Your task to perform on an android device: create a new album in the google photos Image 0: 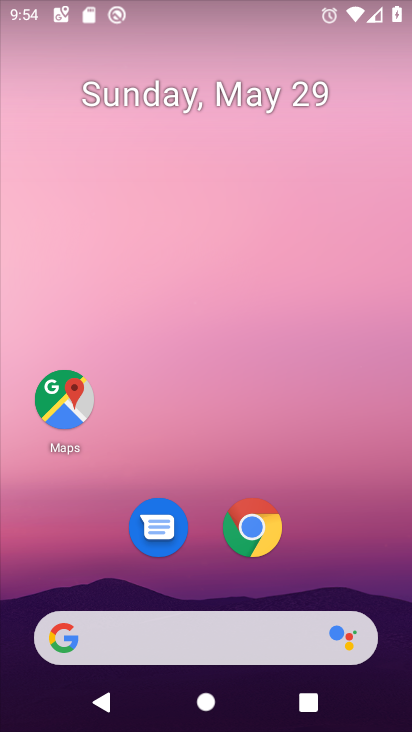
Step 0: press home button
Your task to perform on an android device: create a new album in the google photos Image 1: 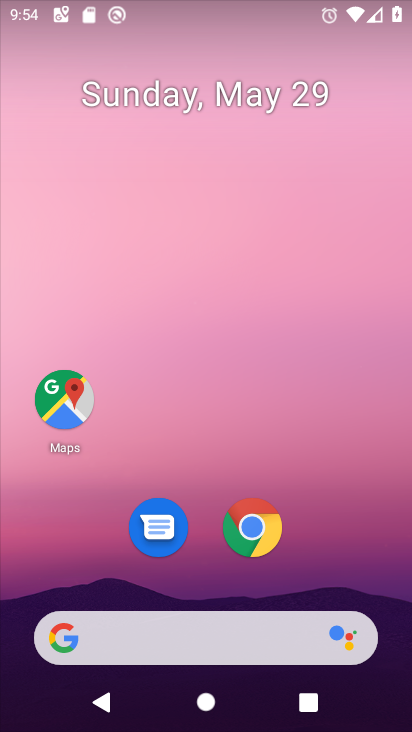
Step 1: drag from (208, 583) to (222, 58)
Your task to perform on an android device: create a new album in the google photos Image 2: 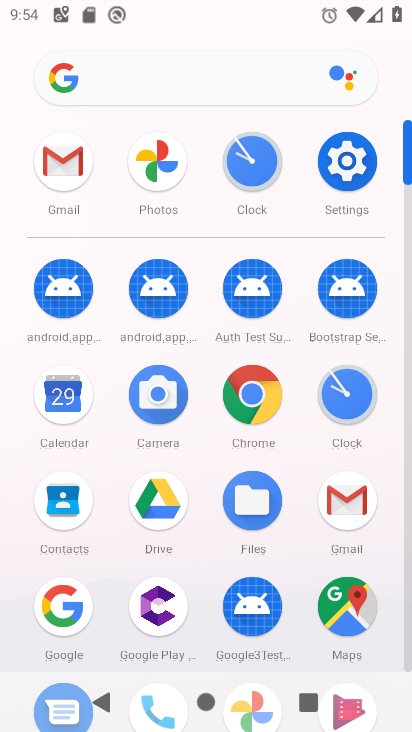
Step 2: drag from (202, 613) to (248, 199)
Your task to perform on an android device: create a new album in the google photos Image 3: 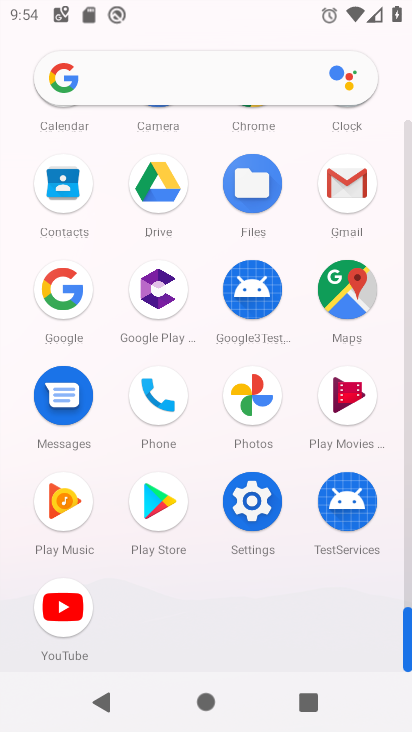
Step 3: click (249, 385)
Your task to perform on an android device: create a new album in the google photos Image 4: 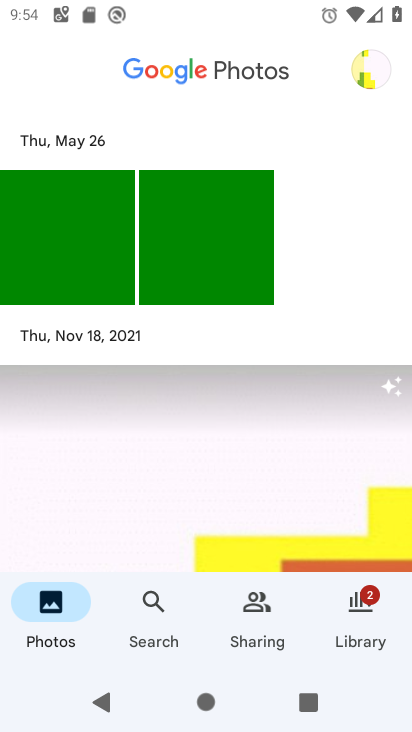
Step 4: click (361, 610)
Your task to perform on an android device: create a new album in the google photos Image 5: 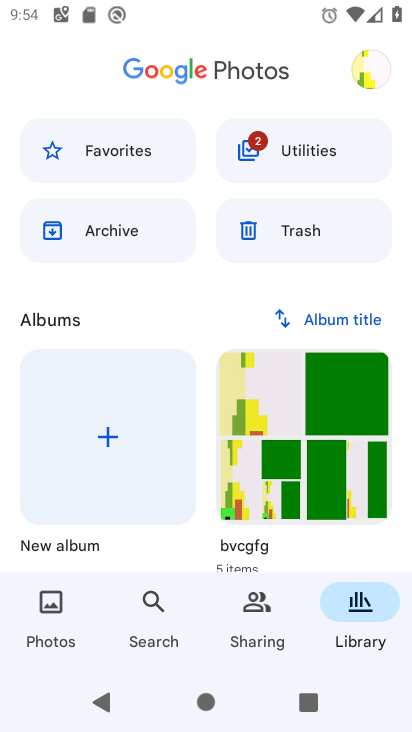
Step 5: click (258, 599)
Your task to perform on an android device: create a new album in the google photos Image 6: 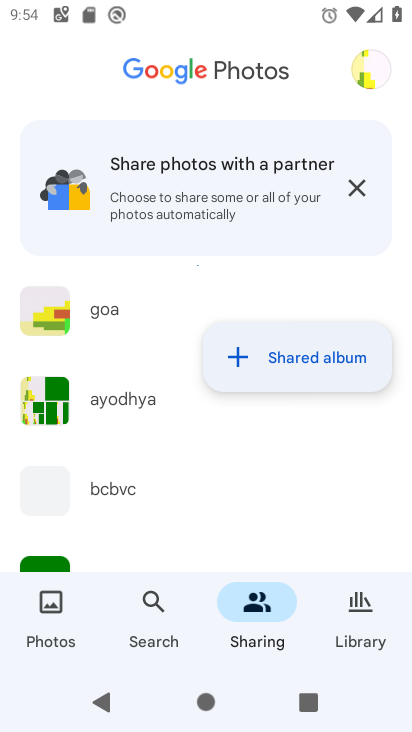
Step 6: click (250, 363)
Your task to perform on an android device: create a new album in the google photos Image 7: 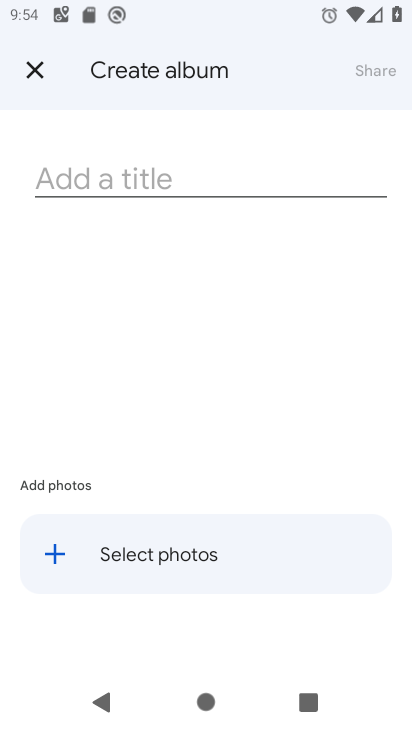
Step 7: click (70, 556)
Your task to perform on an android device: create a new album in the google photos Image 8: 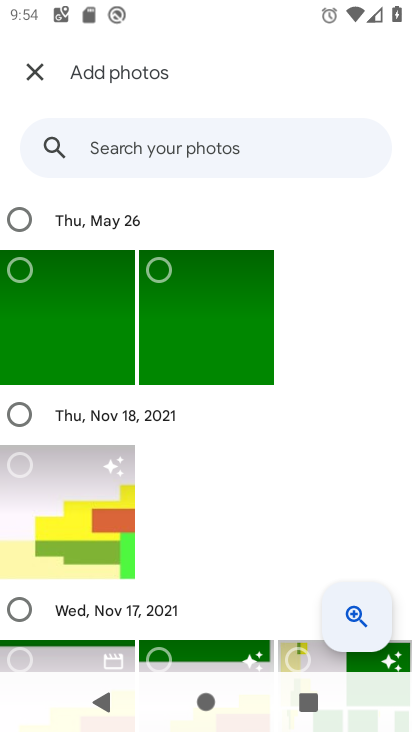
Step 8: click (20, 217)
Your task to perform on an android device: create a new album in the google photos Image 9: 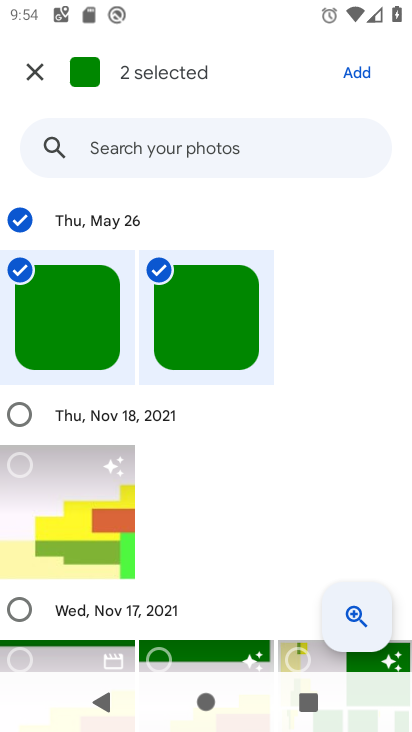
Step 9: click (16, 422)
Your task to perform on an android device: create a new album in the google photos Image 10: 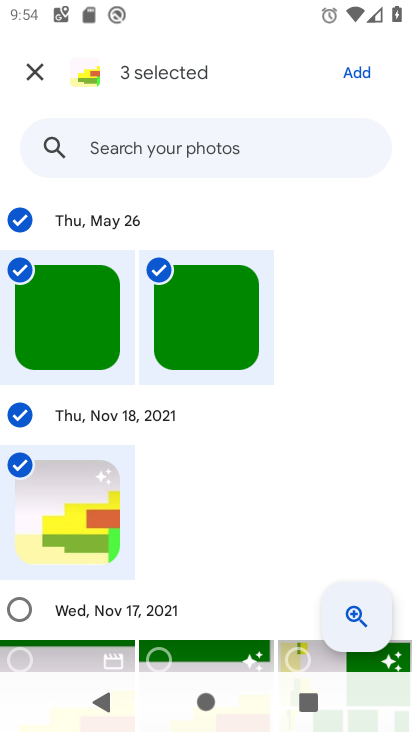
Step 10: click (362, 74)
Your task to perform on an android device: create a new album in the google photos Image 11: 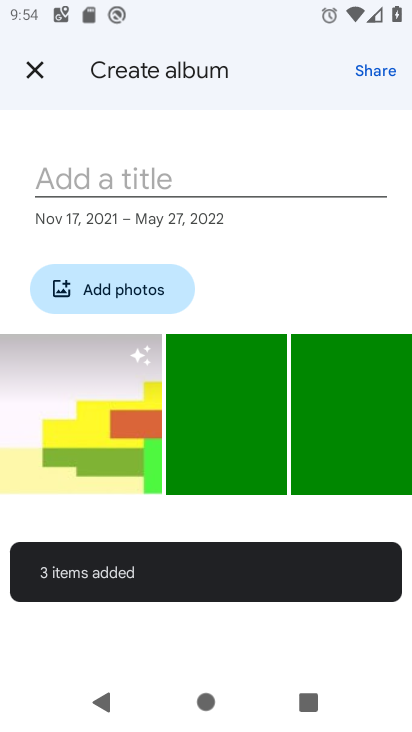
Step 11: click (139, 175)
Your task to perform on an android device: create a new album in the google photos Image 12: 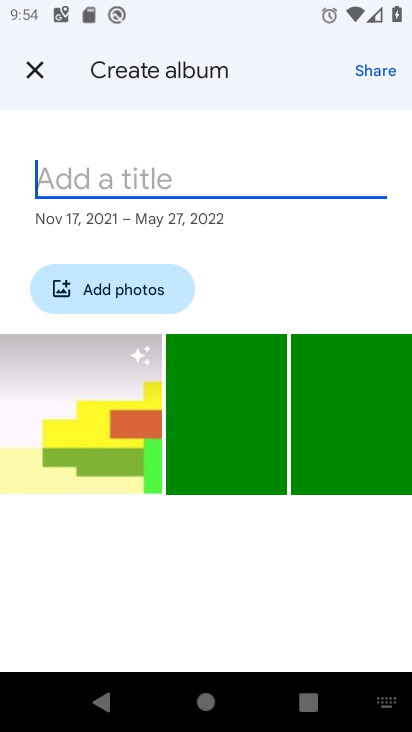
Step 12: type "hgvgfv"
Your task to perform on an android device: create a new album in the google photos Image 13: 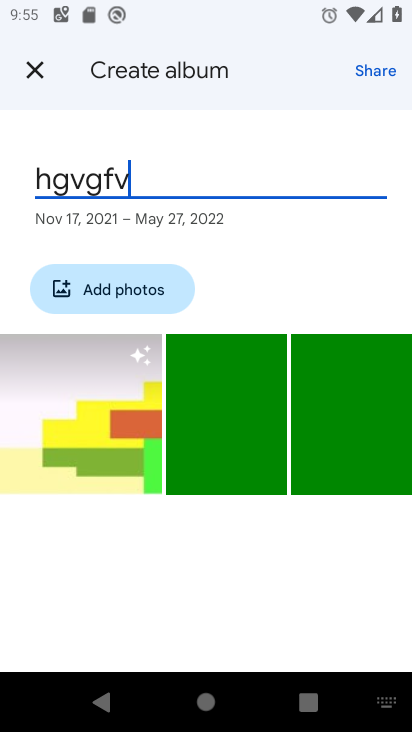
Step 13: click (283, 588)
Your task to perform on an android device: create a new album in the google photos Image 14: 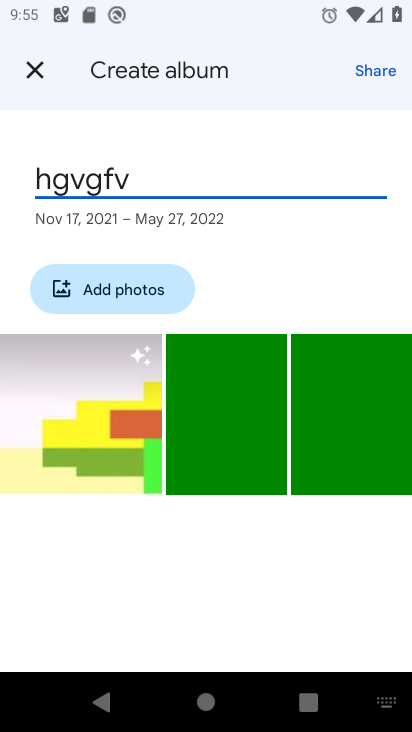
Step 14: task complete